Your task to perform on an android device: change alarm snooze length Image 0: 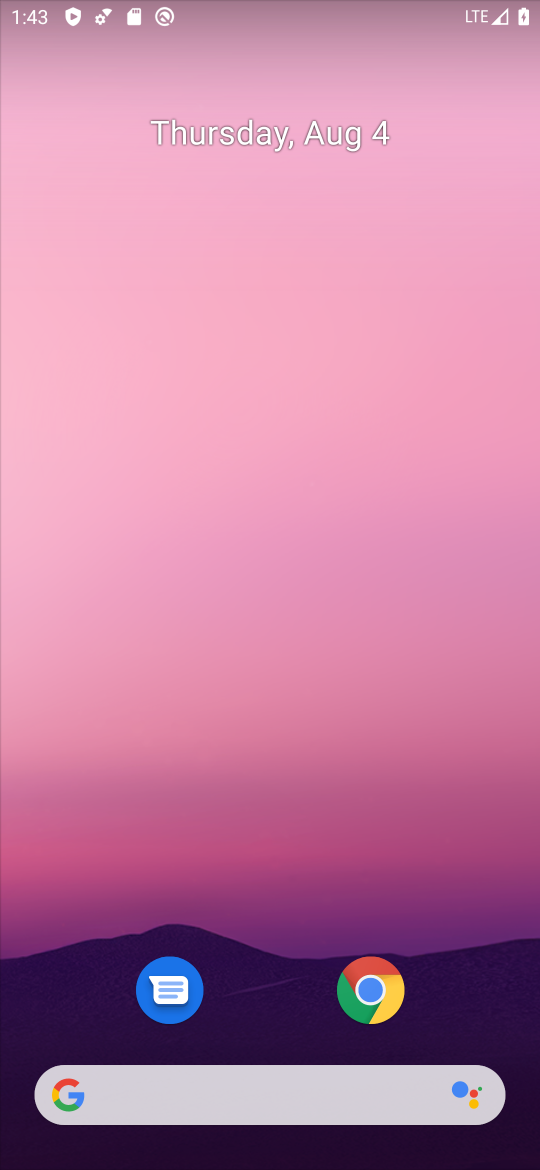
Step 0: drag from (274, 1058) to (303, 385)
Your task to perform on an android device: change alarm snooze length Image 1: 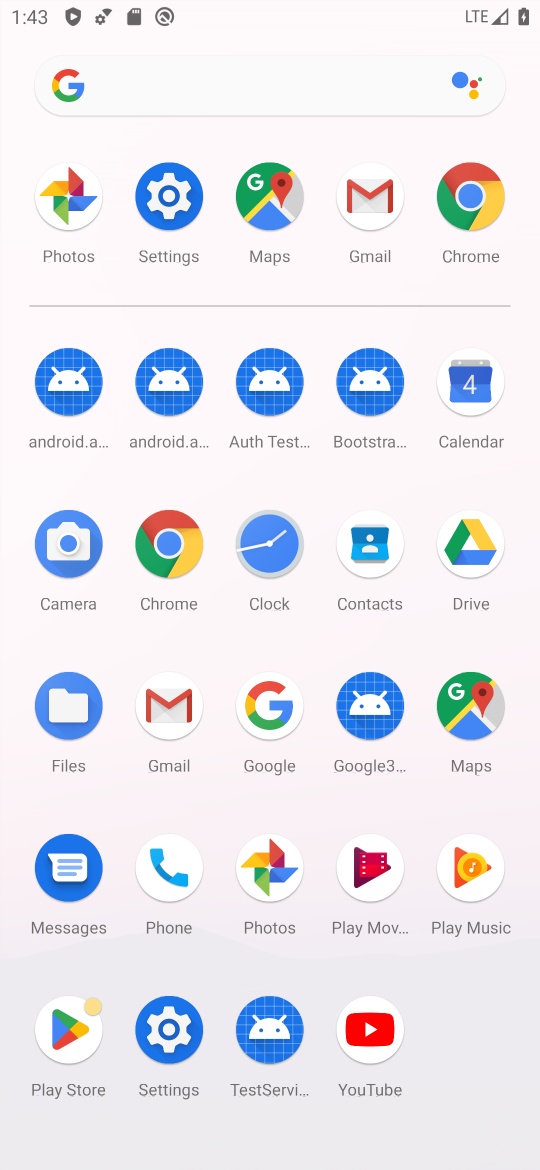
Step 1: click (262, 577)
Your task to perform on an android device: change alarm snooze length Image 2: 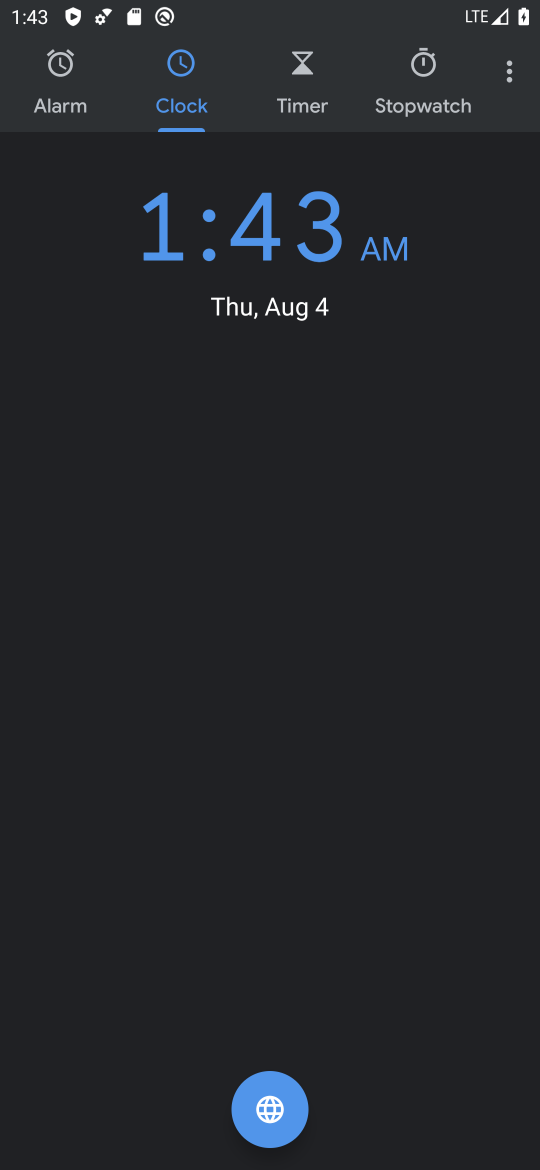
Step 2: click (511, 78)
Your task to perform on an android device: change alarm snooze length Image 3: 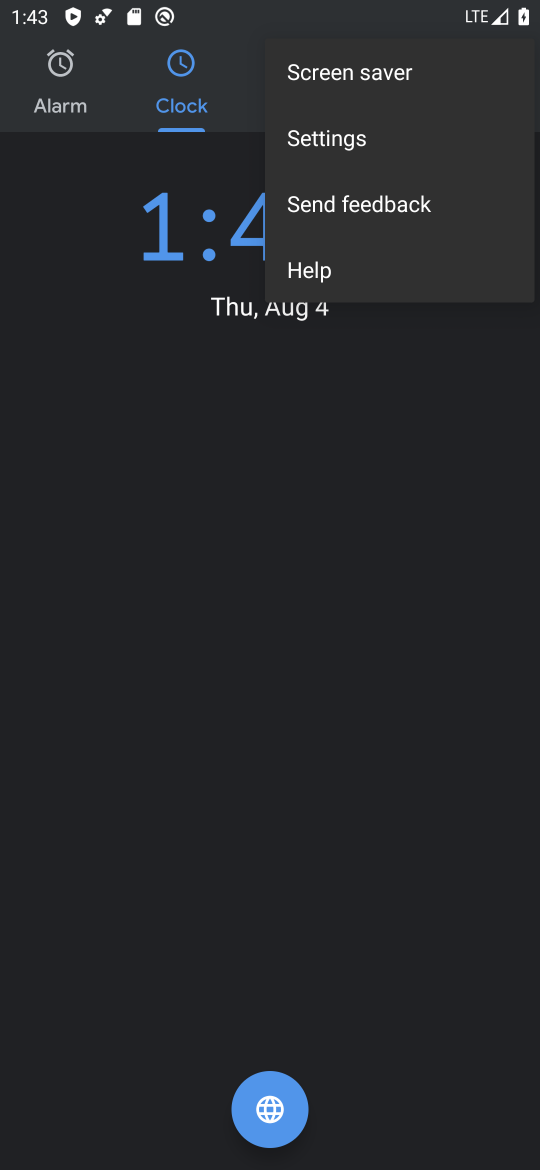
Step 3: click (355, 148)
Your task to perform on an android device: change alarm snooze length Image 4: 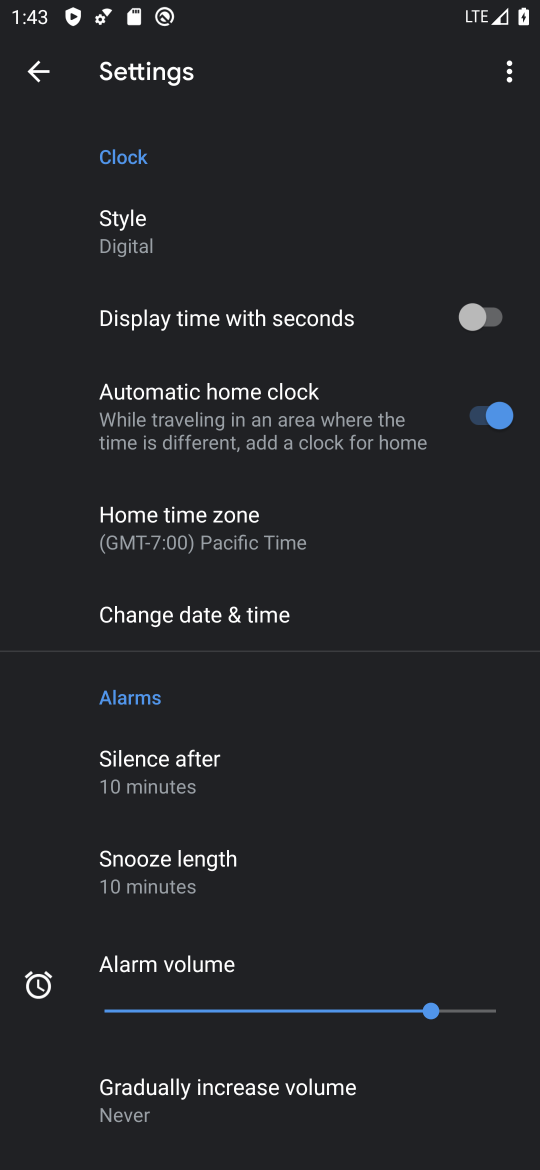
Step 4: click (256, 864)
Your task to perform on an android device: change alarm snooze length Image 5: 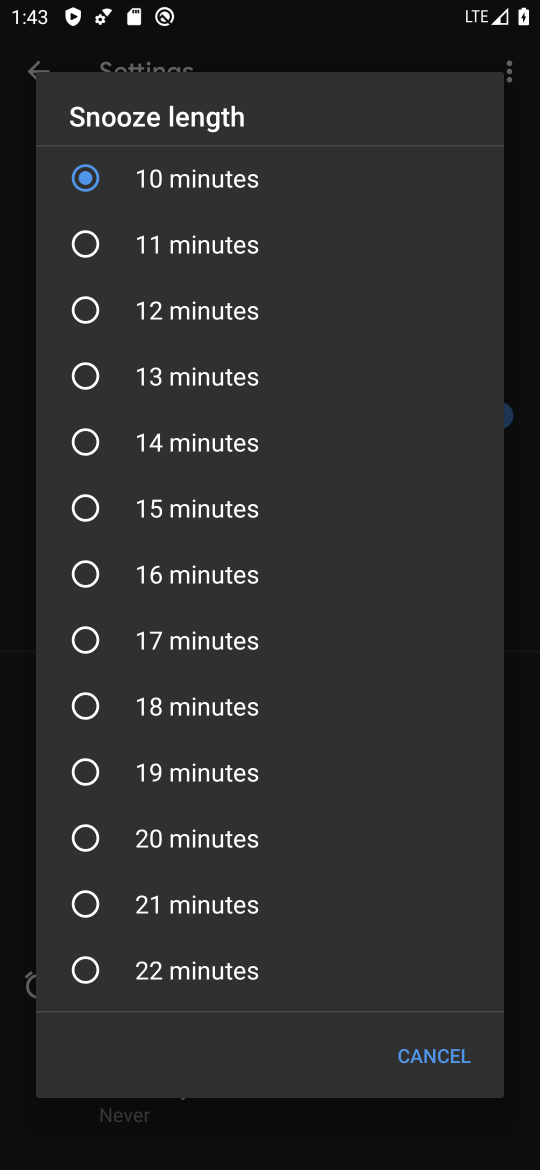
Step 5: drag from (167, 199) to (281, 1129)
Your task to perform on an android device: change alarm snooze length Image 6: 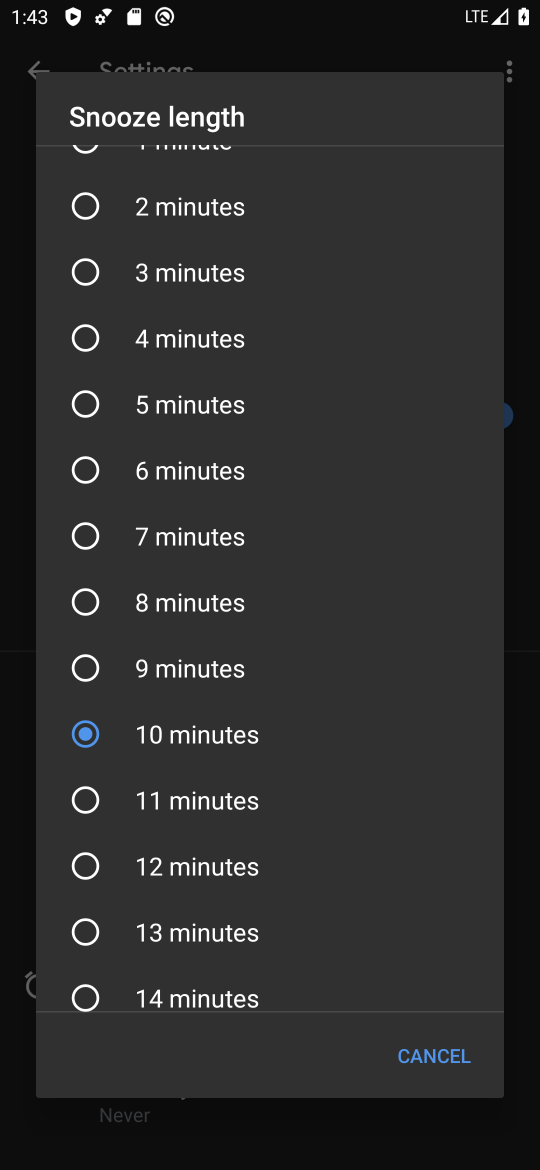
Step 6: drag from (167, 222) to (216, 678)
Your task to perform on an android device: change alarm snooze length Image 7: 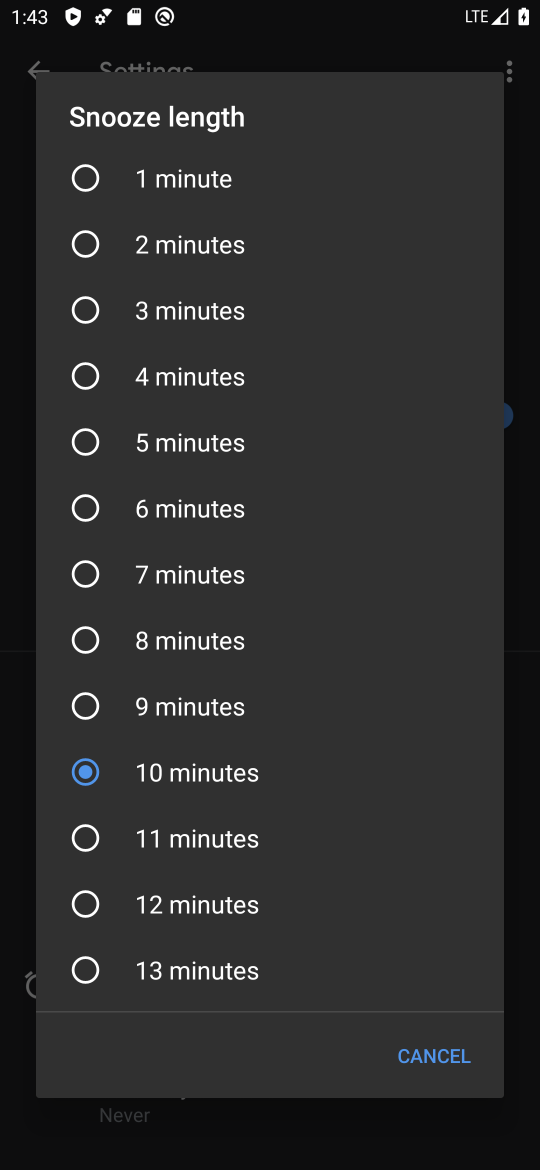
Step 7: drag from (158, 371) to (241, 755)
Your task to perform on an android device: change alarm snooze length Image 8: 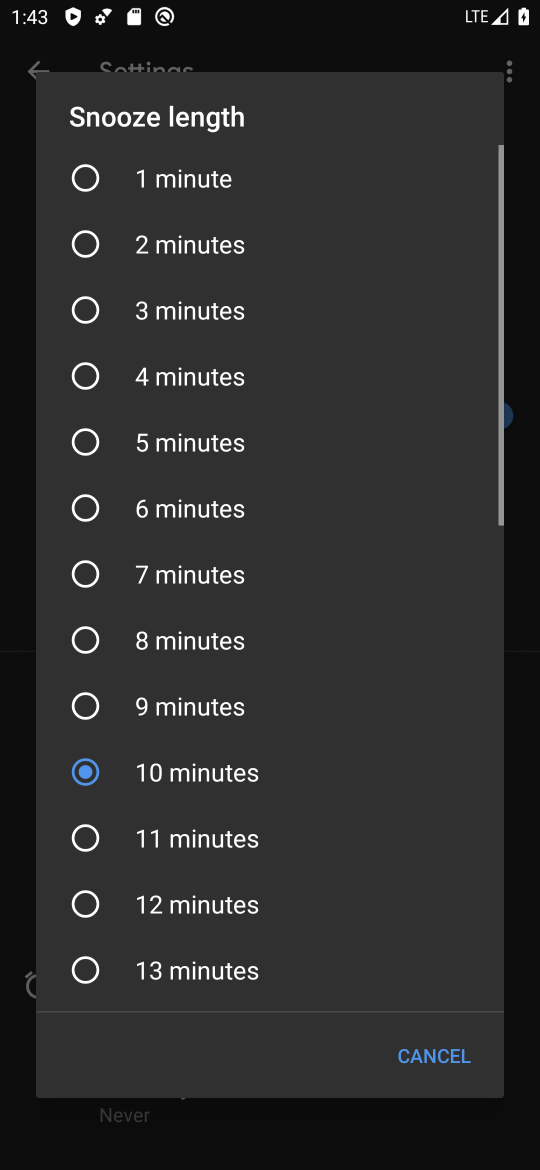
Step 8: click (241, 755)
Your task to perform on an android device: change alarm snooze length Image 9: 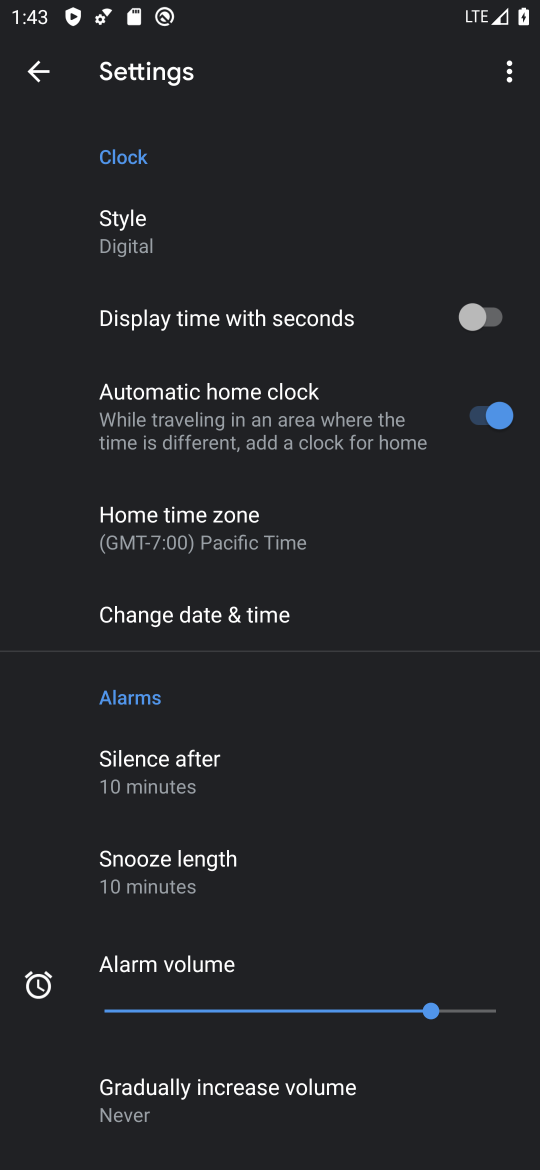
Step 9: task complete